Your task to perform on an android device: Go to Android settings Image 0: 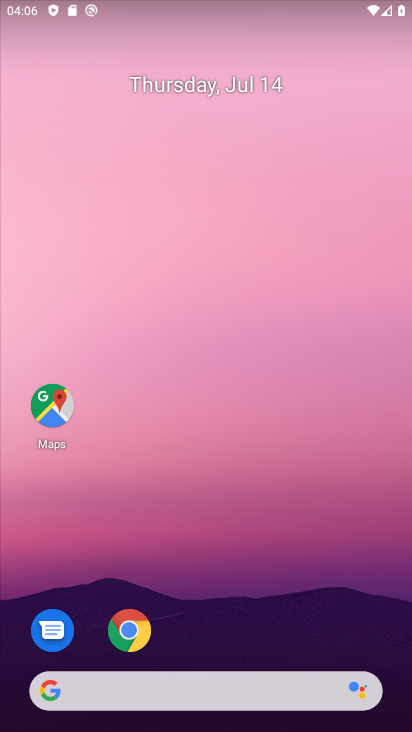
Step 0: drag from (218, 651) to (215, 167)
Your task to perform on an android device: Go to Android settings Image 1: 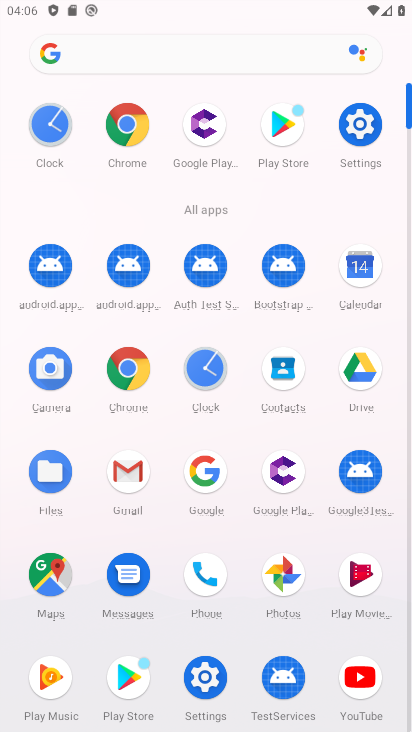
Step 1: click (359, 119)
Your task to perform on an android device: Go to Android settings Image 2: 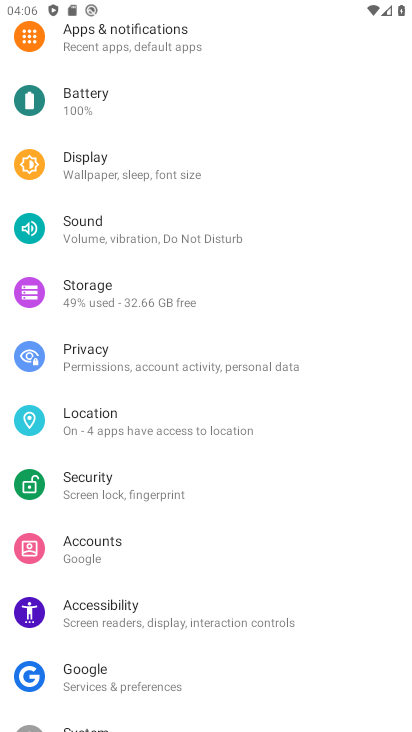
Step 2: drag from (177, 687) to (199, 159)
Your task to perform on an android device: Go to Android settings Image 3: 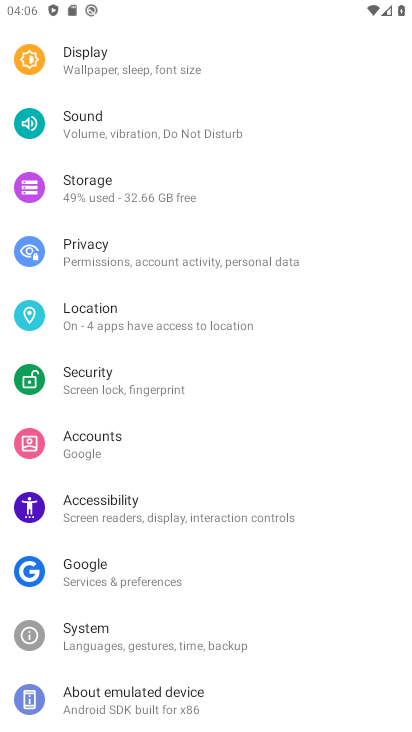
Step 3: click (182, 697)
Your task to perform on an android device: Go to Android settings Image 4: 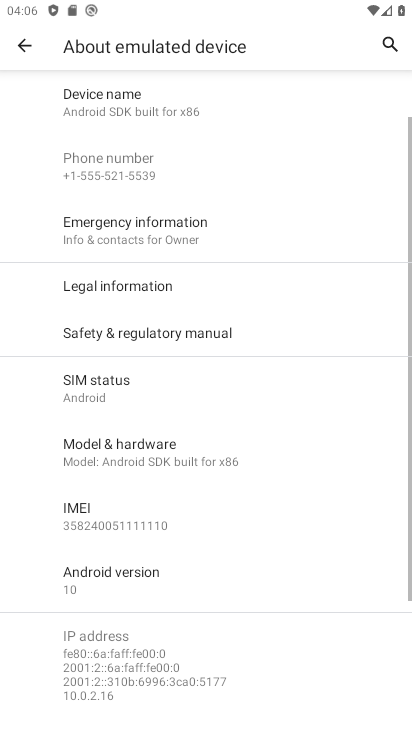
Step 4: click (124, 584)
Your task to perform on an android device: Go to Android settings Image 5: 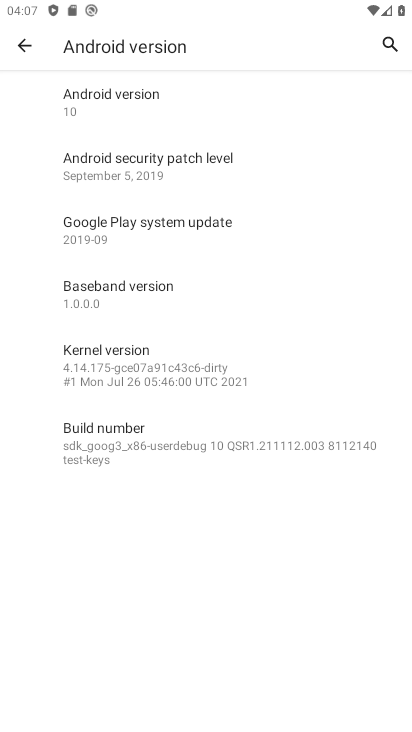
Step 5: task complete